Your task to perform on an android device: Search for "razer nari" on amazon.com, select the first entry, add it to the cart, then select checkout. Image 0: 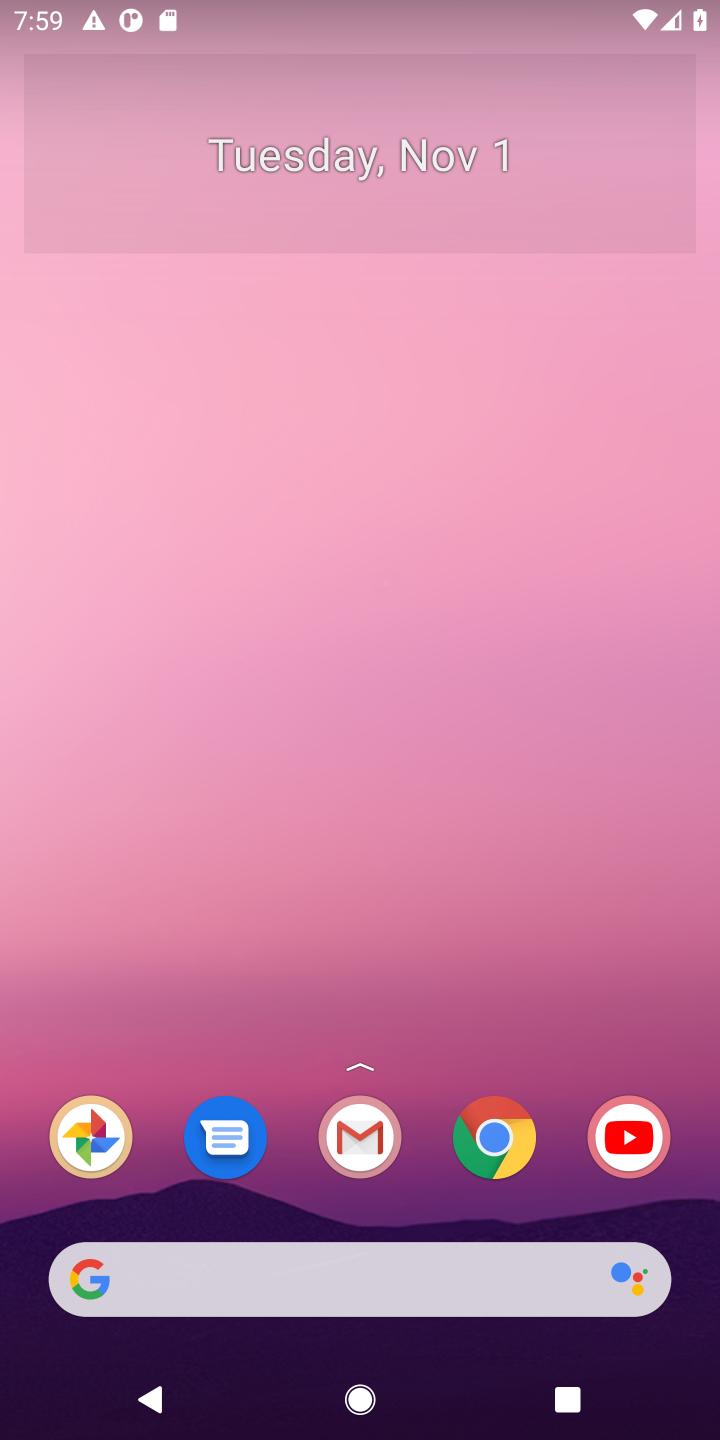
Step 0: click (518, 1119)
Your task to perform on an android device: Search for "razer nari" on amazon.com, select the first entry, add it to the cart, then select checkout. Image 1: 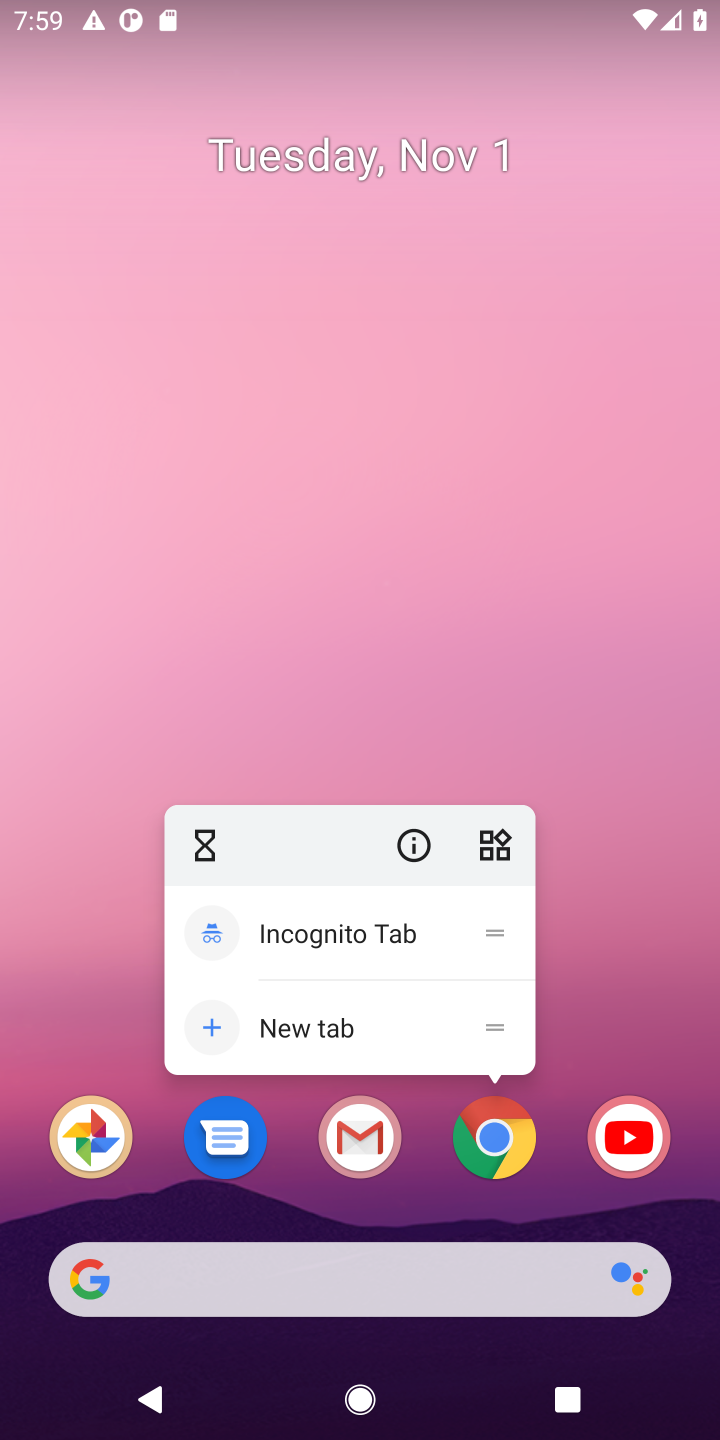
Step 1: click (518, 1119)
Your task to perform on an android device: Search for "razer nari" on amazon.com, select the first entry, add it to the cart, then select checkout. Image 2: 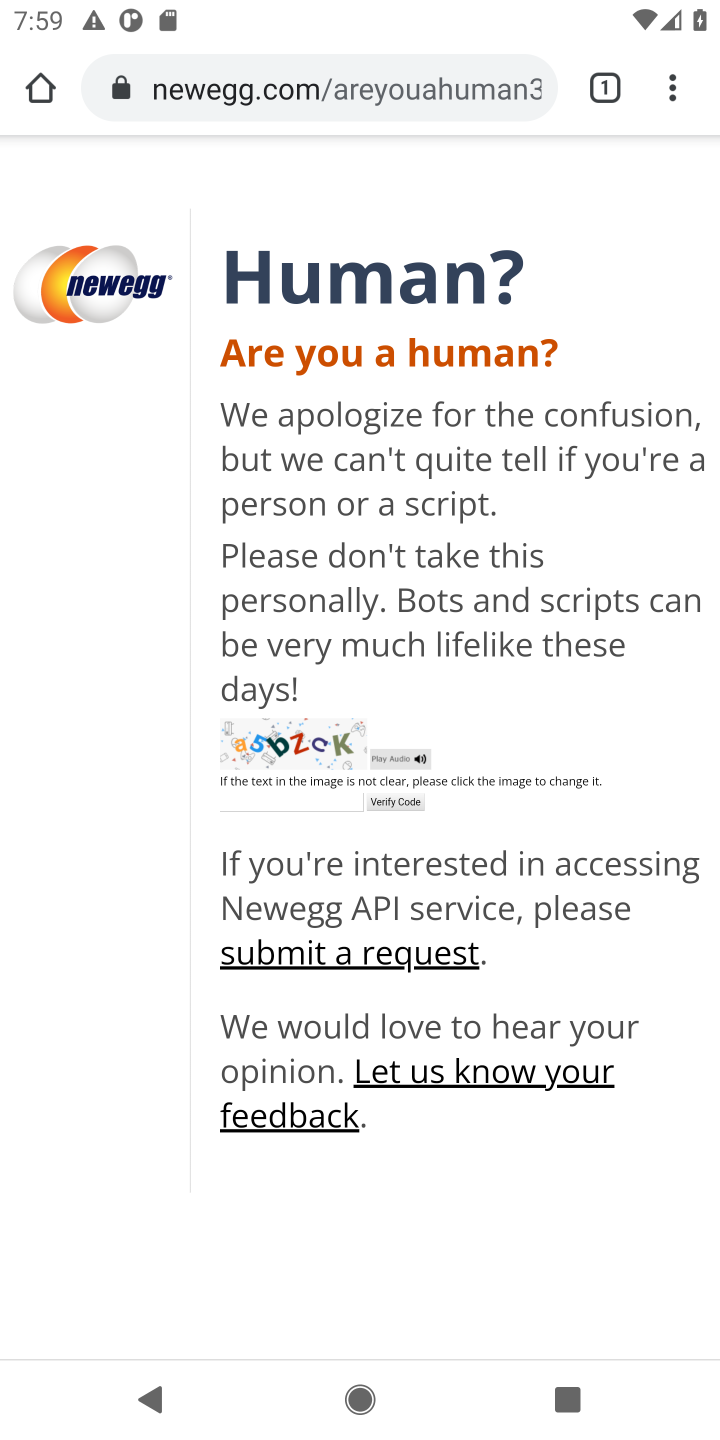
Step 2: click (381, 100)
Your task to perform on an android device: Search for "razer nari" on amazon.com, select the first entry, add it to the cart, then select checkout. Image 3: 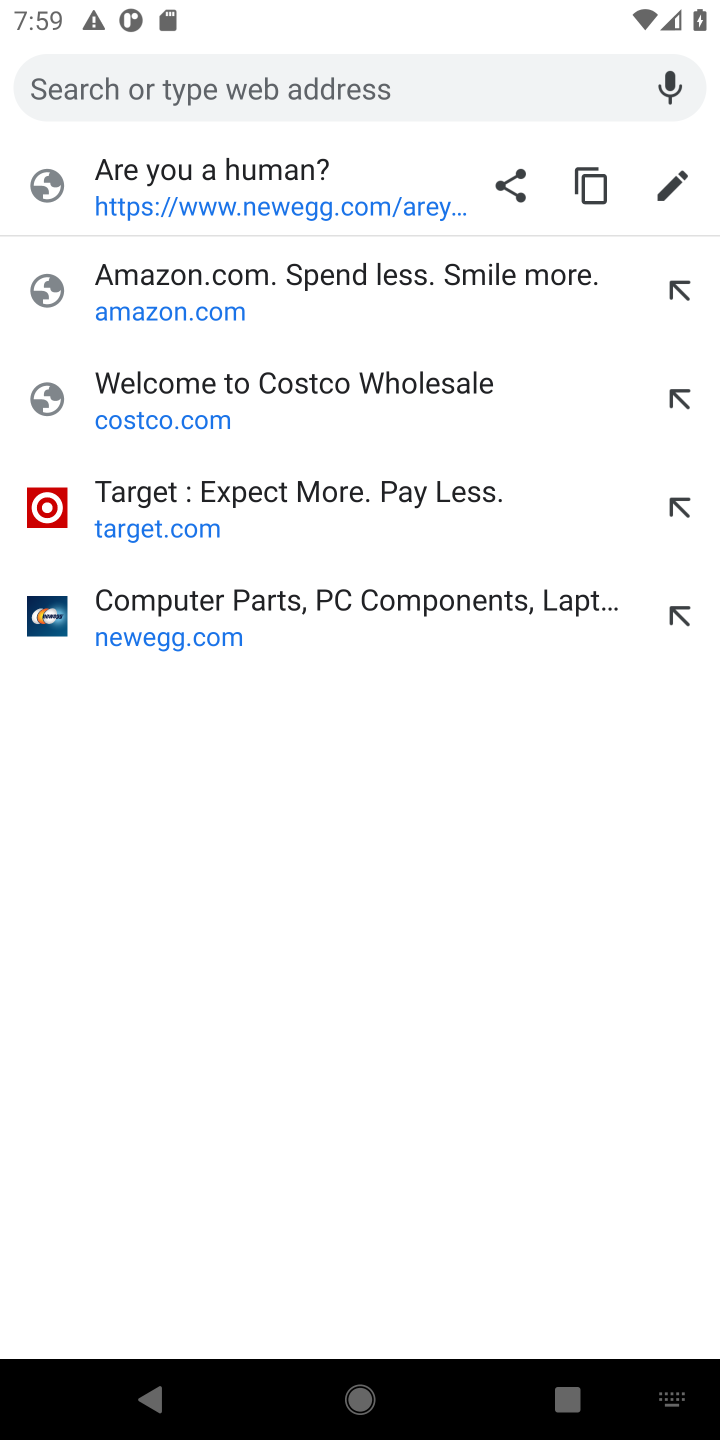
Step 3: type "amazon.com"
Your task to perform on an android device: Search for "razer nari" on amazon.com, select the first entry, add it to the cart, then select checkout. Image 4: 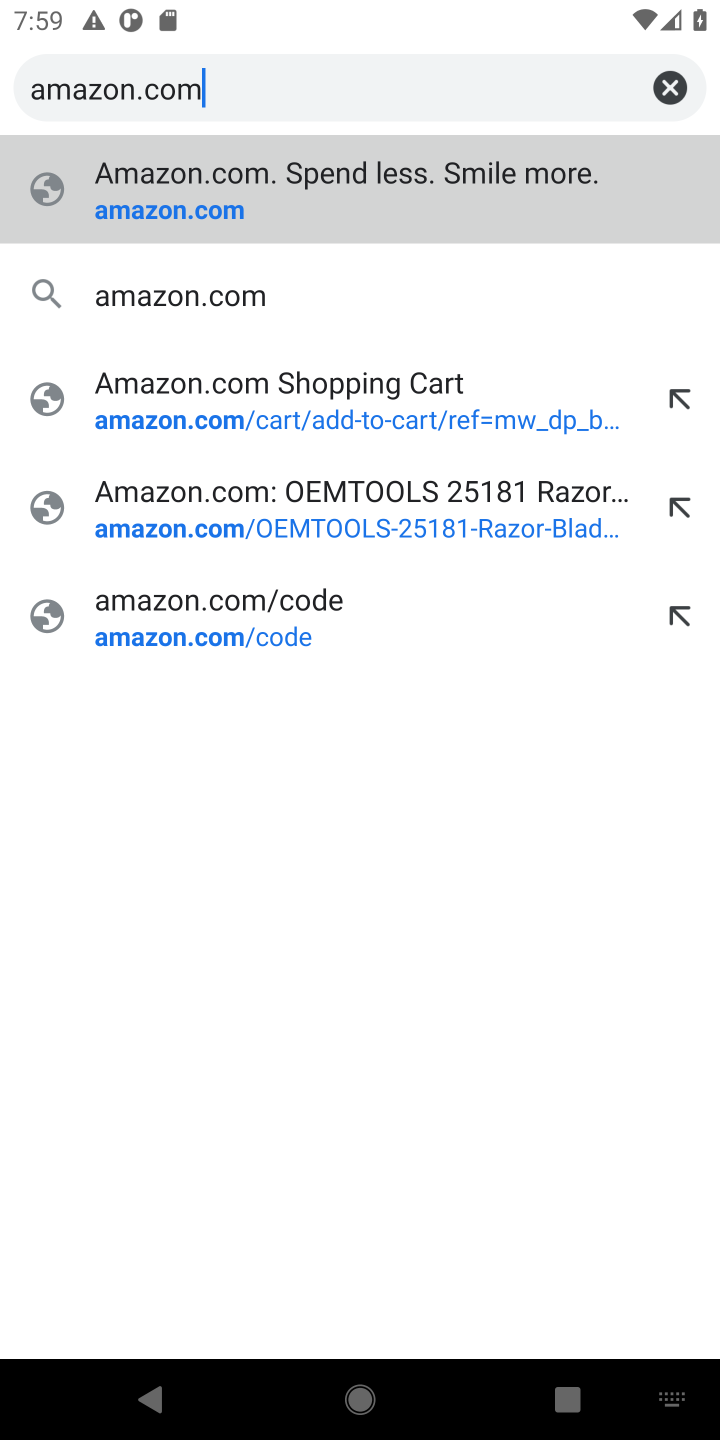
Step 4: press enter
Your task to perform on an android device: Search for "razer nari" on amazon.com, select the first entry, add it to the cart, then select checkout. Image 5: 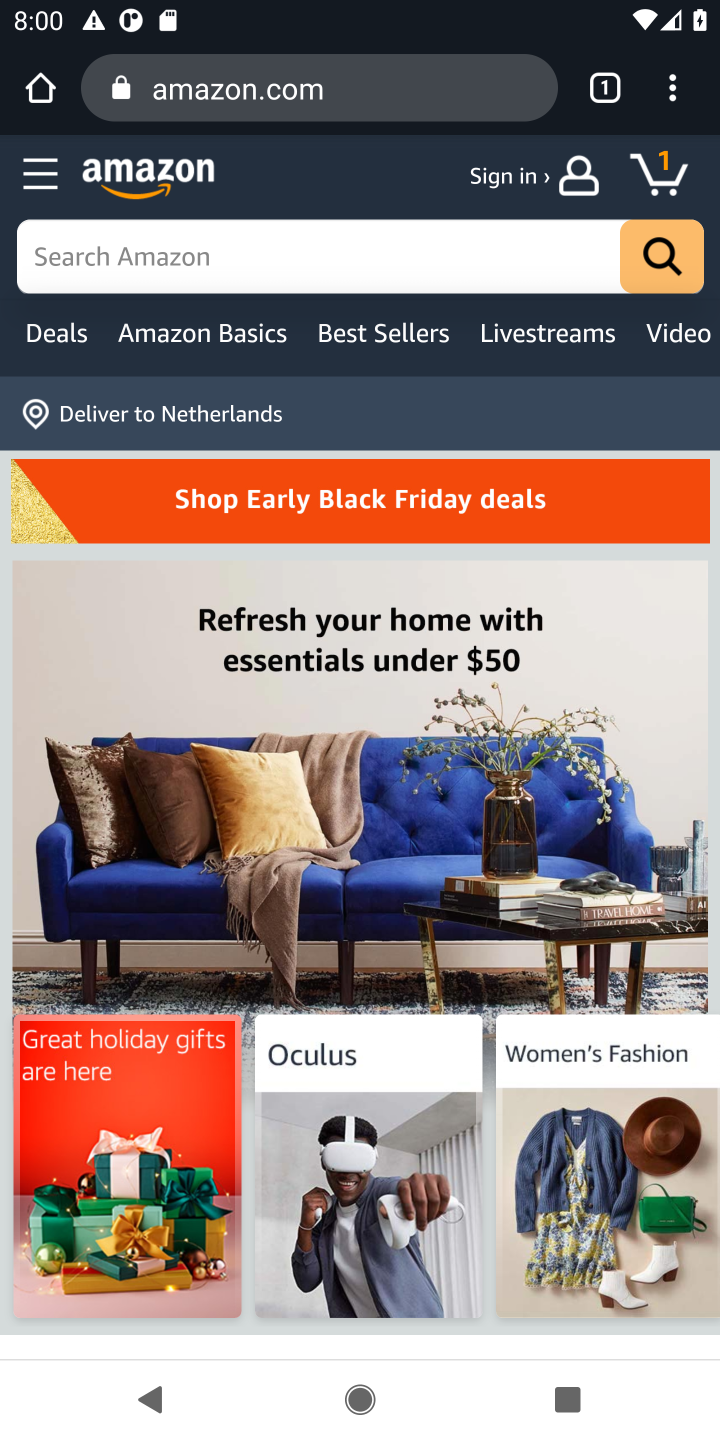
Step 5: click (361, 254)
Your task to perform on an android device: Search for "razer nari" on amazon.com, select the first entry, add it to the cart, then select checkout. Image 6: 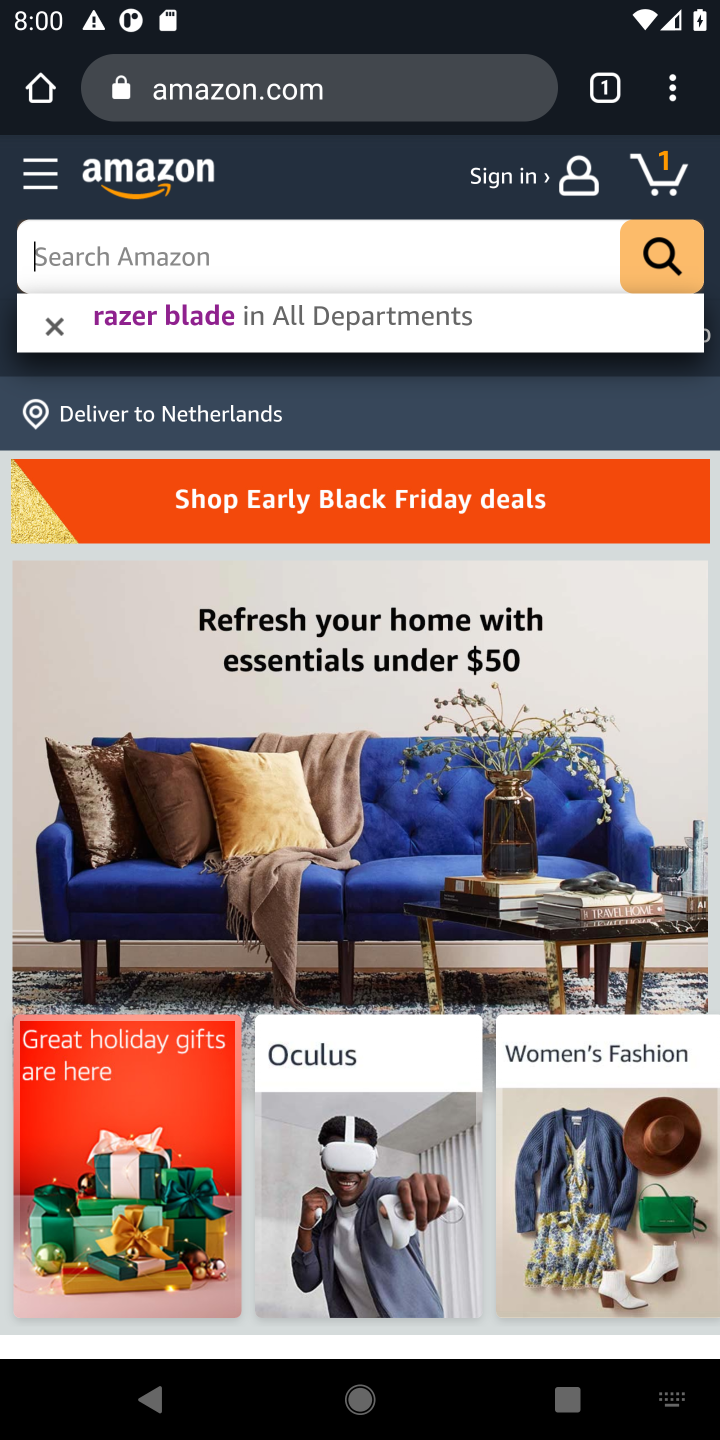
Step 6: type "razer nari"
Your task to perform on an android device: Search for "razer nari" on amazon.com, select the first entry, add it to the cart, then select checkout. Image 7: 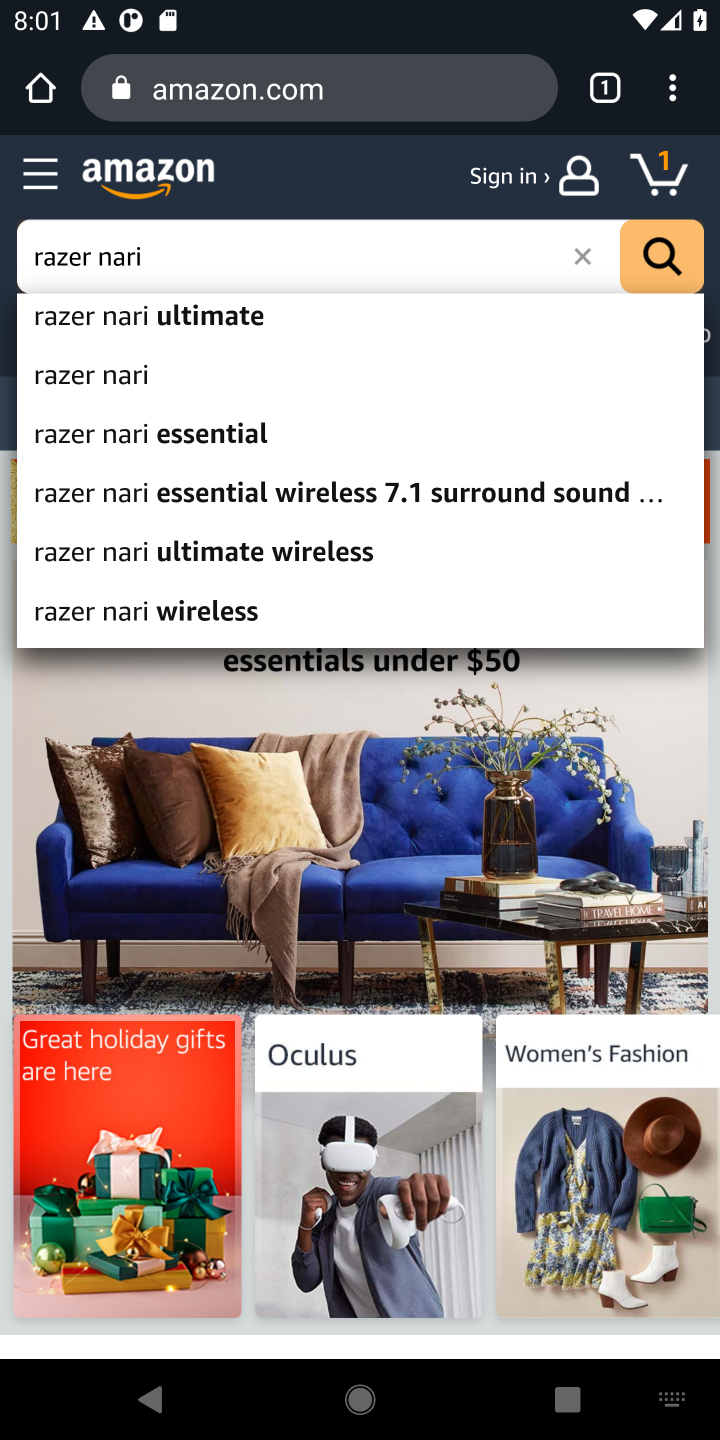
Step 7: press enter
Your task to perform on an android device: Search for "razer nari" on amazon.com, select the first entry, add it to the cart, then select checkout. Image 8: 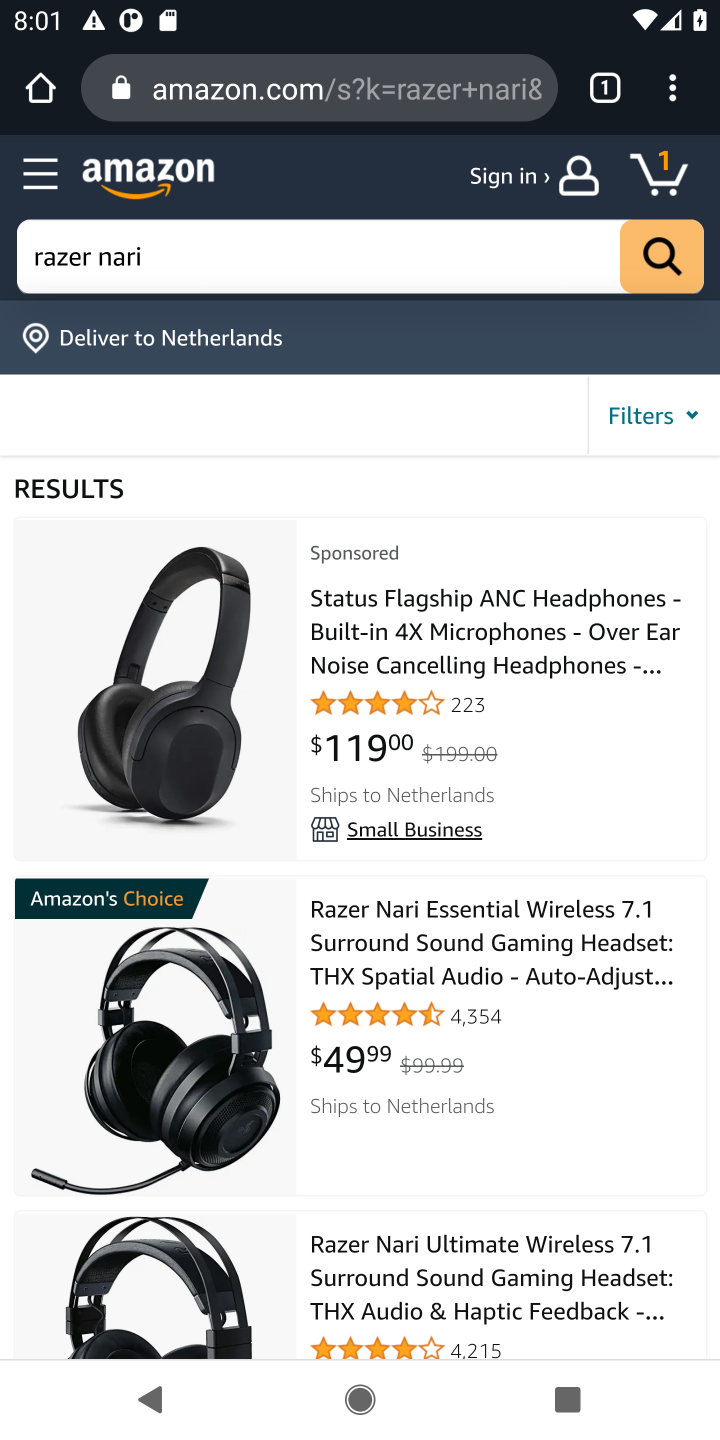
Step 8: click (173, 670)
Your task to perform on an android device: Search for "razer nari" on amazon.com, select the first entry, add it to the cart, then select checkout. Image 9: 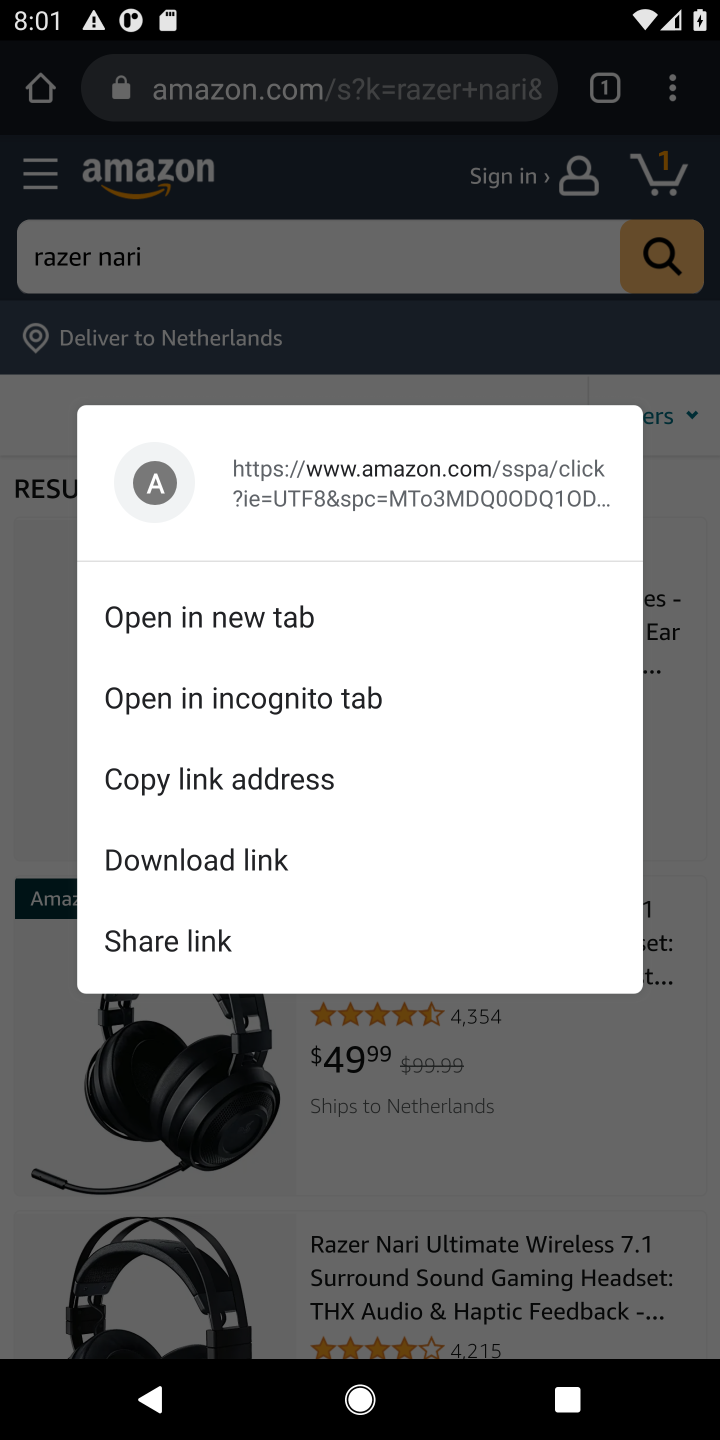
Step 9: click (441, 1118)
Your task to perform on an android device: Search for "razer nari" on amazon.com, select the first entry, add it to the cart, then select checkout. Image 10: 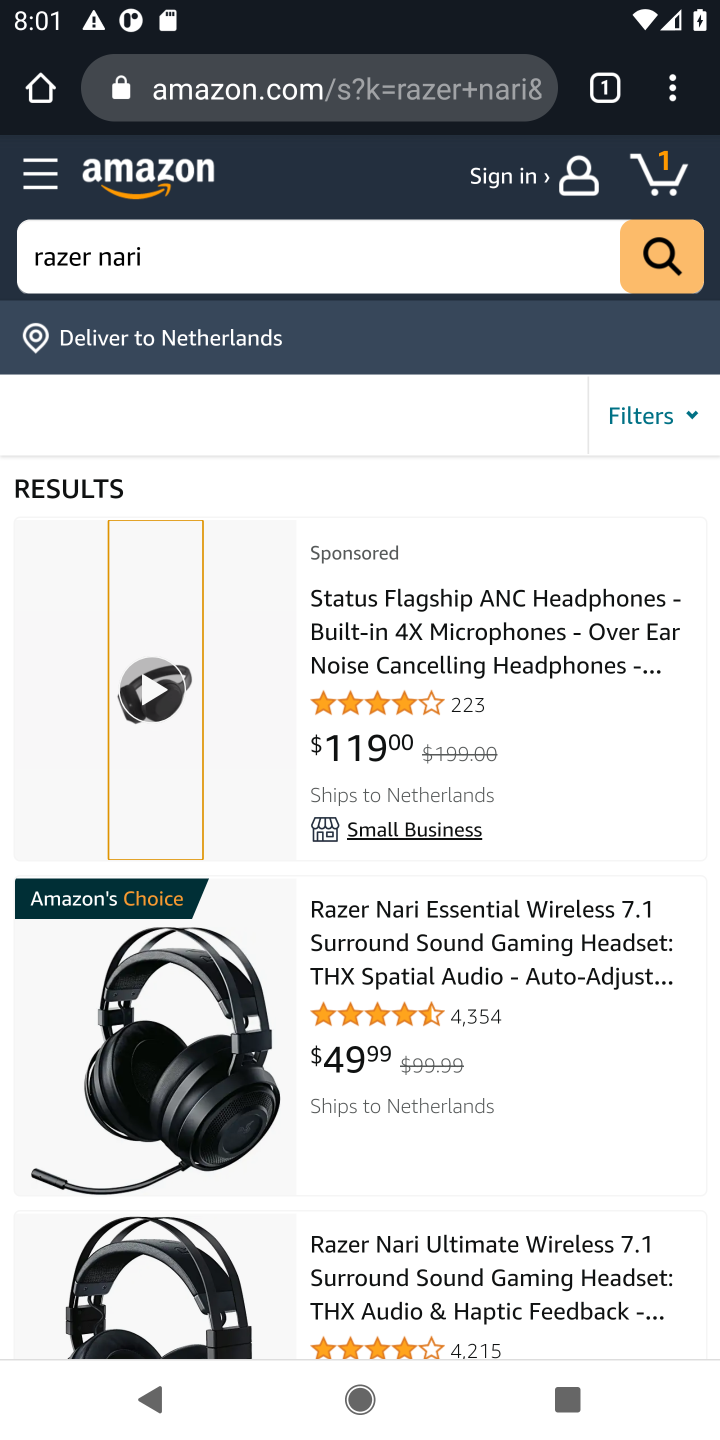
Step 10: click (236, 1091)
Your task to perform on an android device: Search for "razer nari" on amazon.com, select the first entry, add it to the cart, then select checkout. Image 11: 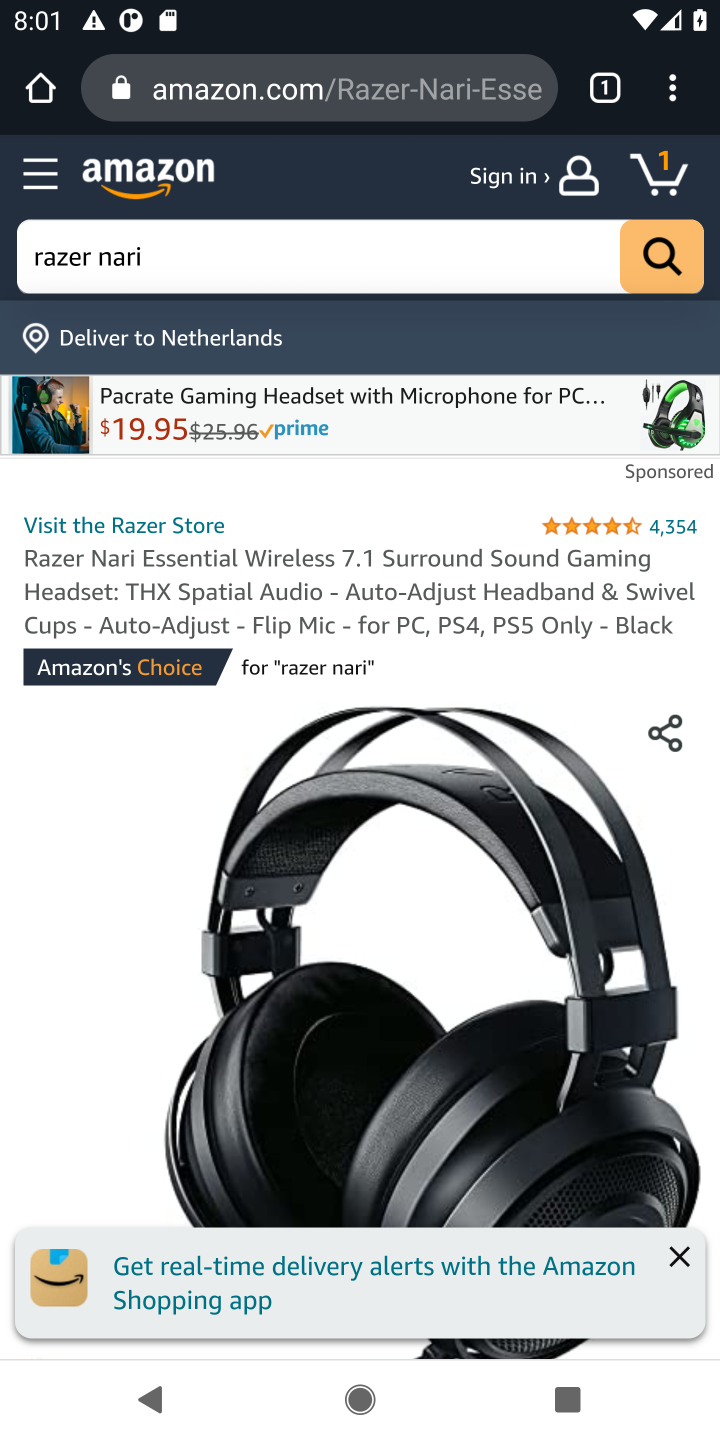
Step 11: drag from (460, 1027) to (356, 348)
Your task to perform on an android device: Search for "razer nari" on amazon.com, select the first entry, add it to the cart, then select checkout. Image 12: 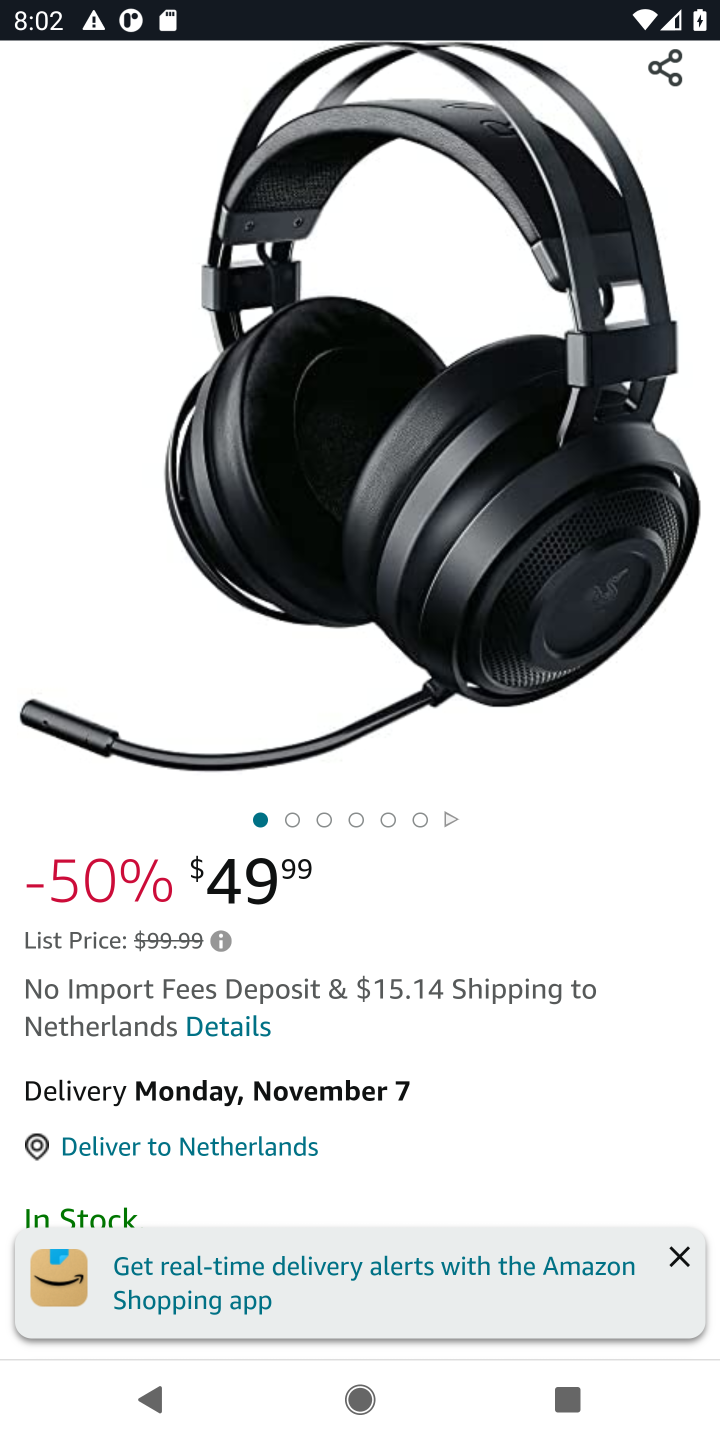
Step 12: drag from (409, 1112) to (293, 400)
Your task to perform on an android device: Search for "razer nari" on amazon.com, select the first entry, add it to the cart, then select checkout. Image 13: 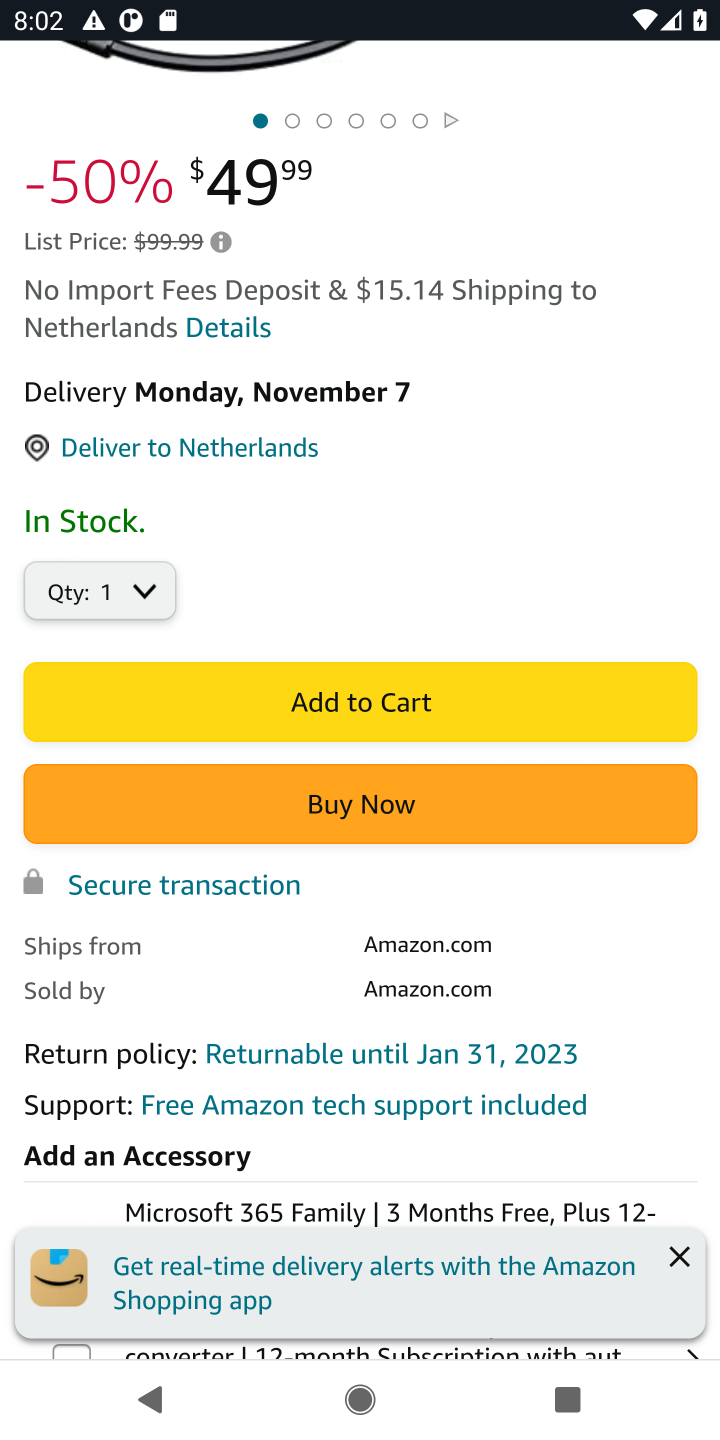
Step 13: click (398, 689)
Your task to perform on an android device: Search for "razer nari" on amazon.com, select the first entry, add it to the cart, then select checkout. Image 14: 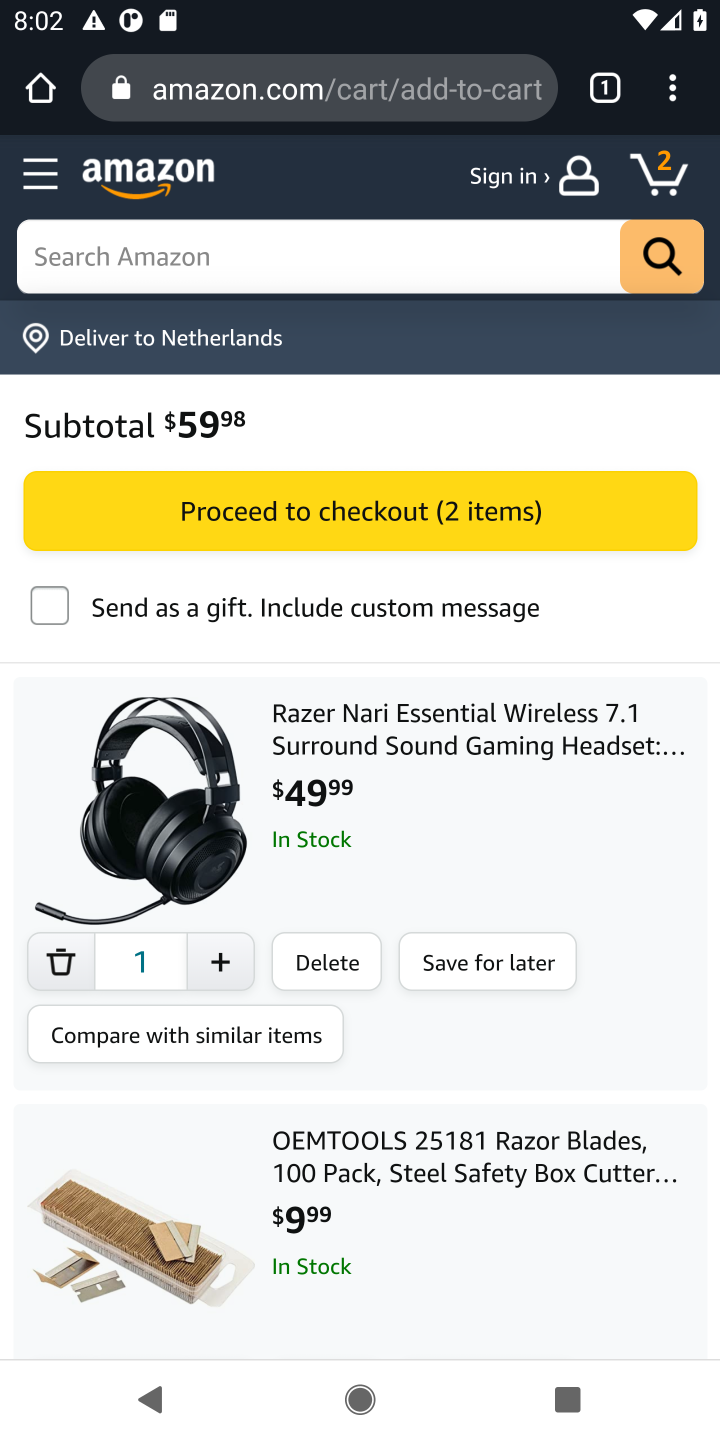
Step 14: click (567, 511)
Your task to perform on an android device: Search for "razer nari" on amazon.com, select the first entry, add it to the cart, then select checkout. Image 15: 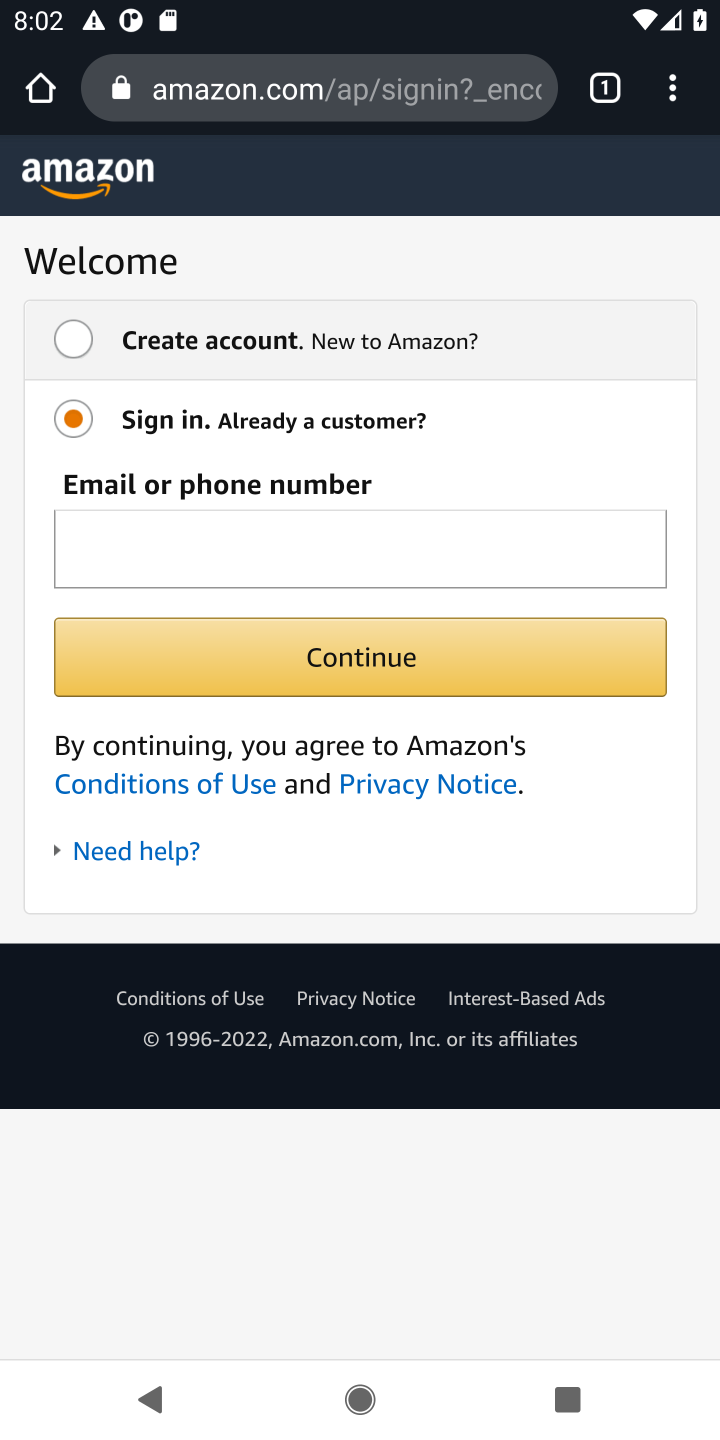
Step 15: task complete